Your task to perform on an android device: Go to ESPN.com Image 0: 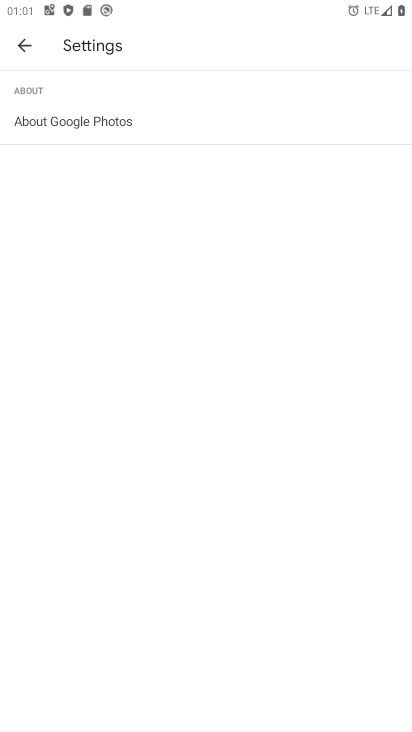
Step 0: press home button
Your task to perform on an android device: Go to ESPN.com Image 1: 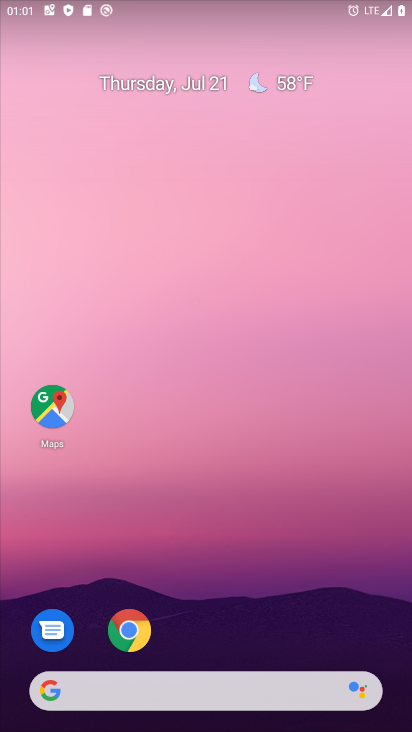
Step 1: click (133, 612)
Your task to perform on an android device: Go to ESPN.com Image 2: 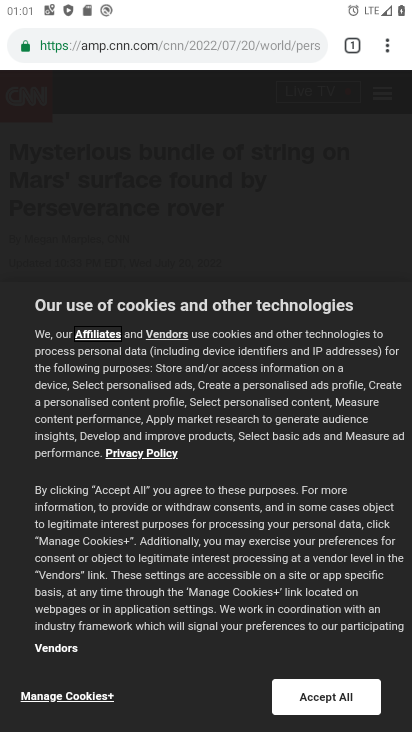
Step 2: click (348, 50)
Your task to perform on an android device: Go to ESPN.com Image 3: 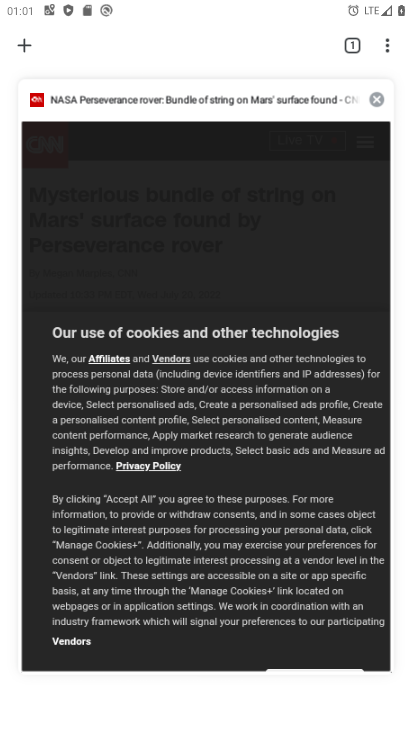
Step 3: click (43, 45)
Your task to perform on an android device: Go to ESPN.com Image 4: 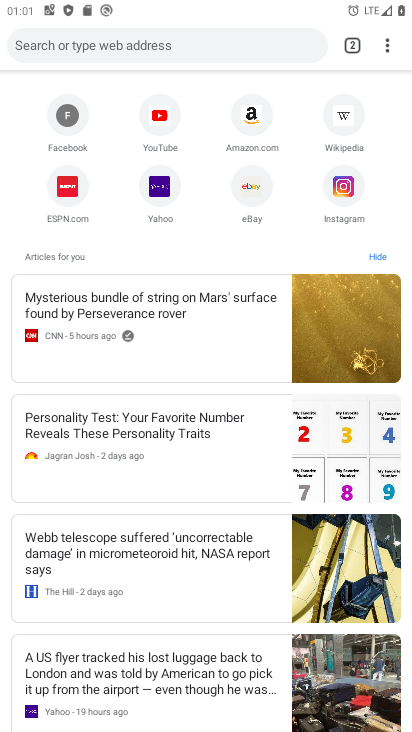
Step 4: click (81, 207)
Your task to perform on an android device: Go to ESPN.com Image 5: 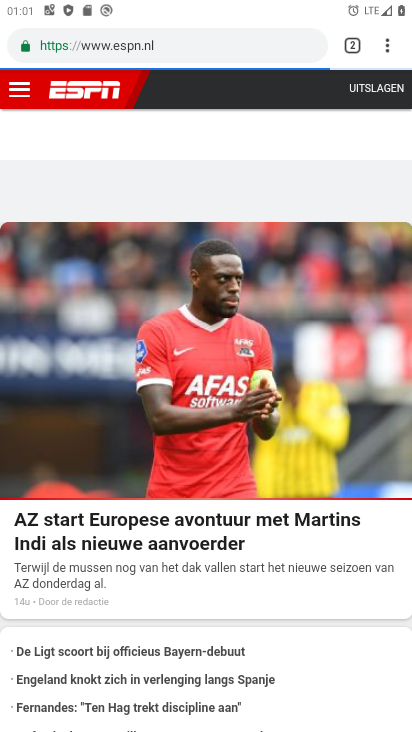
Step 5: task complete